Your task to perform on an android device: Clear the shopping cart on walmart. Add razer thresher to the cart on walmart Image 0: 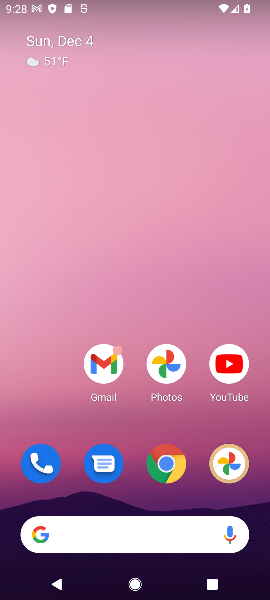
Step 0: click (123, 531)
Your task to perform on an android device: Clear the shopping cart on walmart. Add razer thresher to the cart on walmart Image 1: 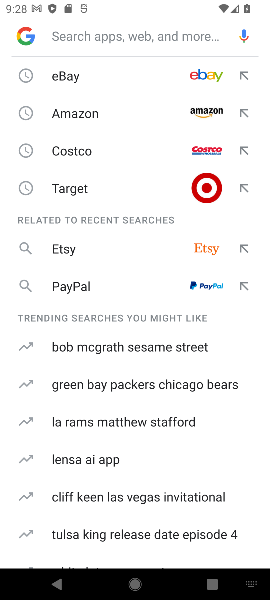
Step 1: type "walmart"
Your task to perform on an android device: Clear the shopping cart on walmart. Add razer thresher to the cart on walmart Image 2: 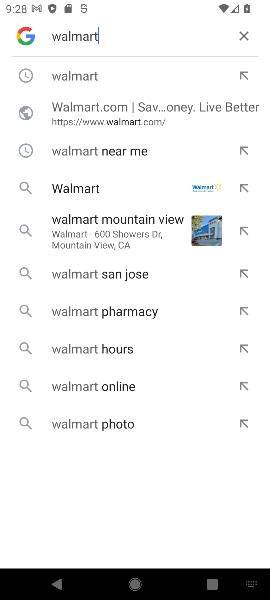
Step 2: click (95, 87)
Your task to perform on an android device: Clear the shopping cart on walmart. Add razer thresher to the cart on walmart Image 3: 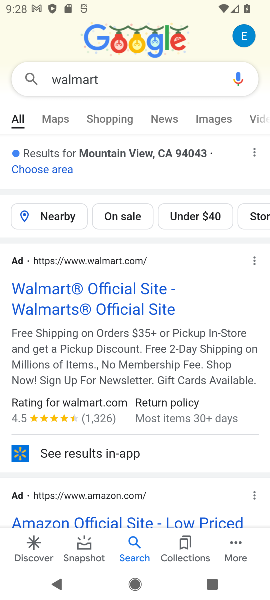
Step 3: click (100, 298)
Your task to perform on an android device: Clear the shopping cart on walmart. Add razer thresher to the cart on walmart Image 4: 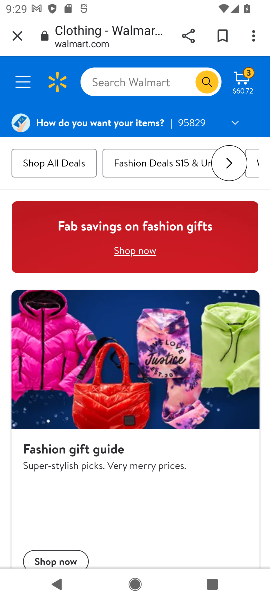
Step 4: task complete